Your task to perform on an android device: turn off location Image 0: 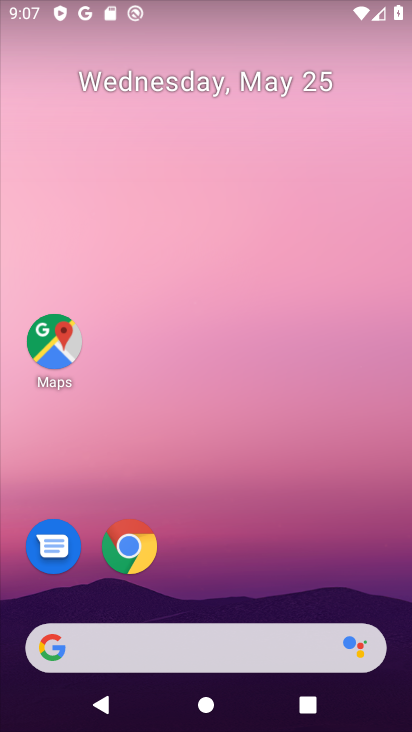
Step 0: drag from (216, 565) to (298, 131)
Your task to perform on an android device: turn off location Image 1: 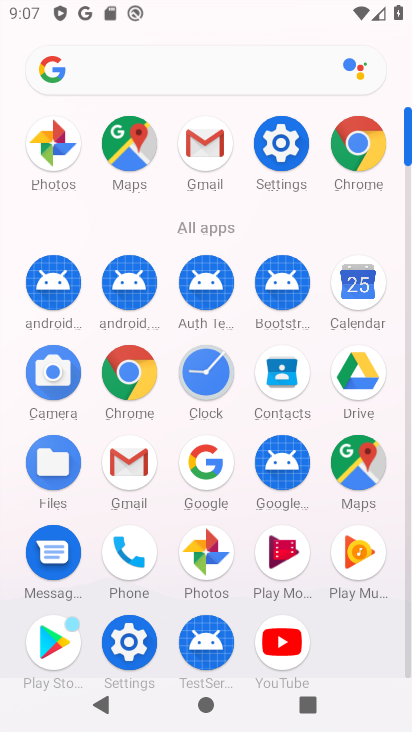
Step 1: click (123, 641)
Your task to perform on an android device: turn off location Image 2: 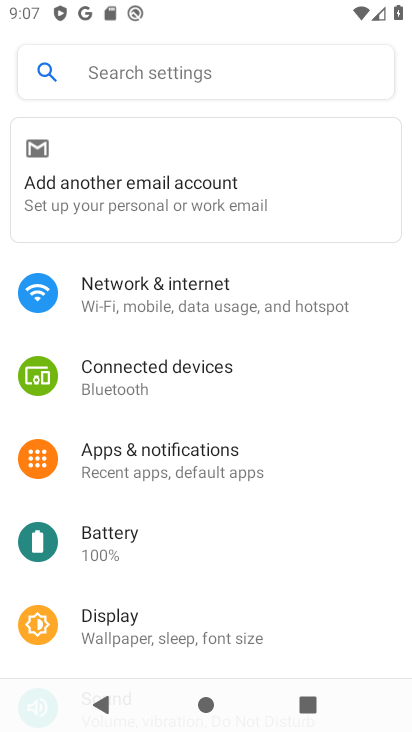
Step 2: drag from (181, 596) to (323, 204)
Your task to perform on an android device: turn off location Image 3: 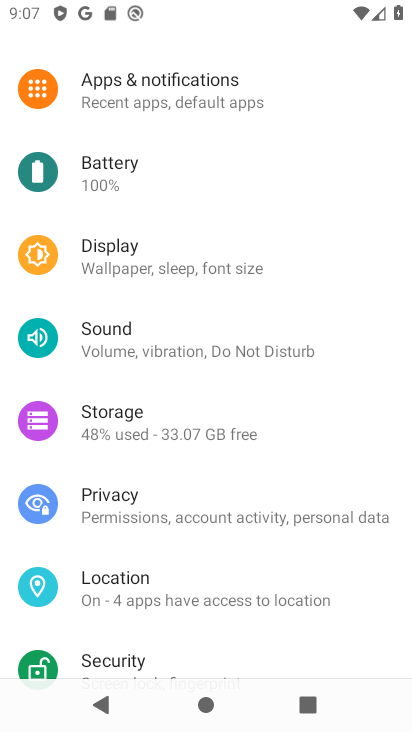
Step 3: click (157, 597)
Your task to perform on an android device: turn off location Image 4: 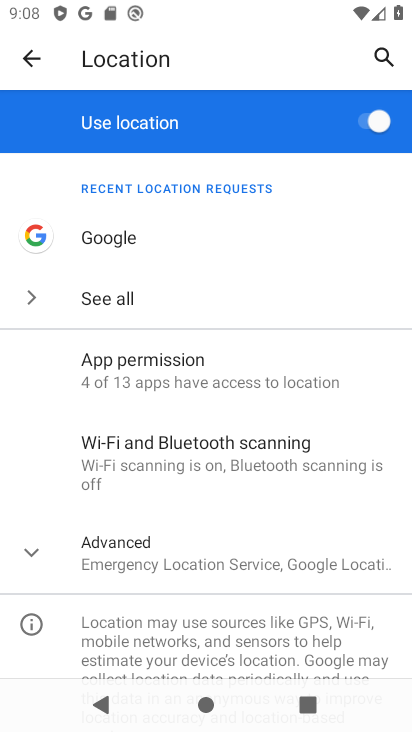
Step 4: click (365, 125)
Your task to perform on an android device: turn off location Image 5: 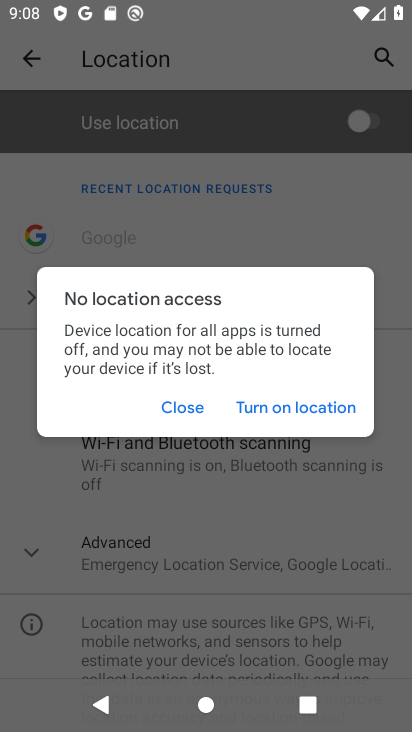
Step 5: click (187, 406)
Your task to perform on an android device: turn off location Image 6: 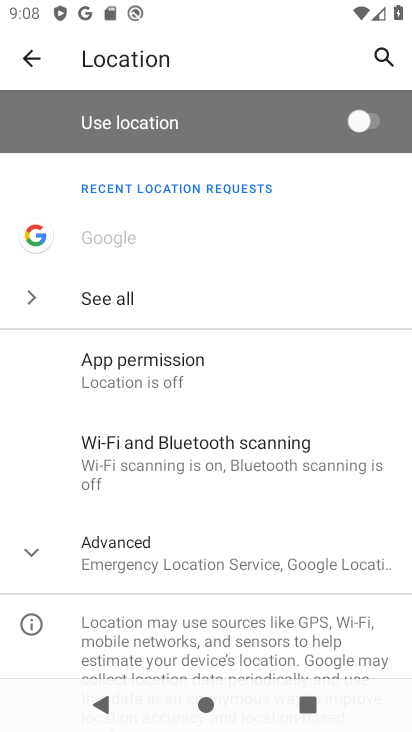
Step 6: task complete